Your task to perform on an android device: Go to ESPN.com Image 0: 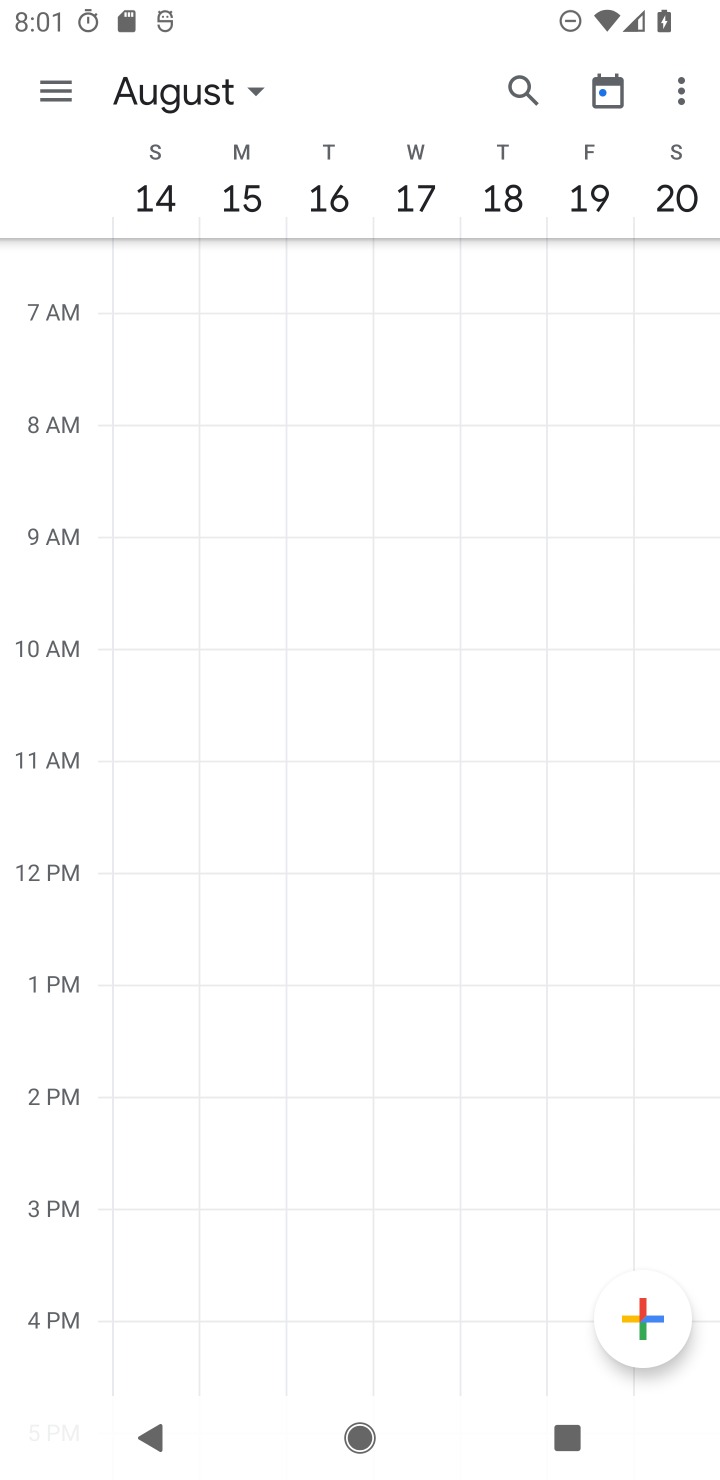
Step 0: press home button
Your task to perform on an android device: Go to ESPN.com Image 1: 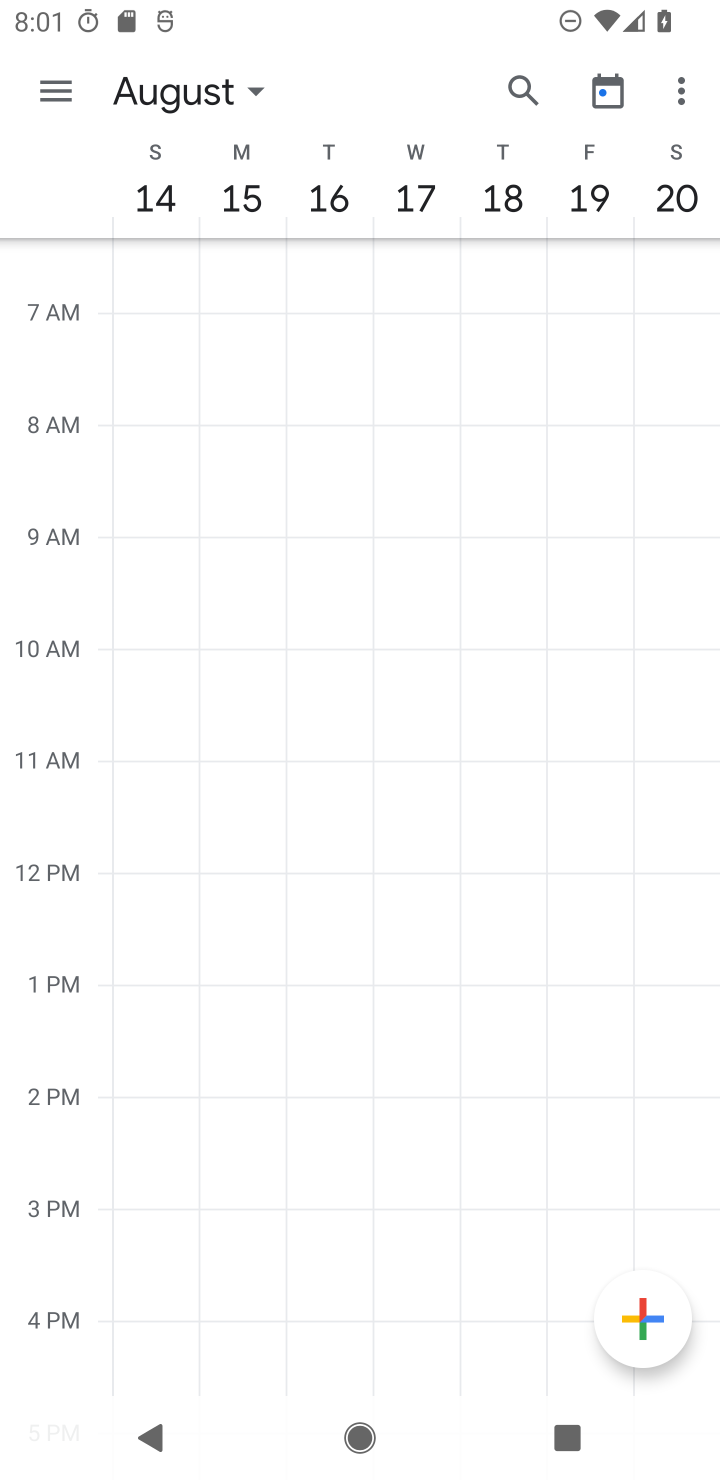
Step 1: press home button
Your task to perform on an android device: Go to ESPN.com Image 2: 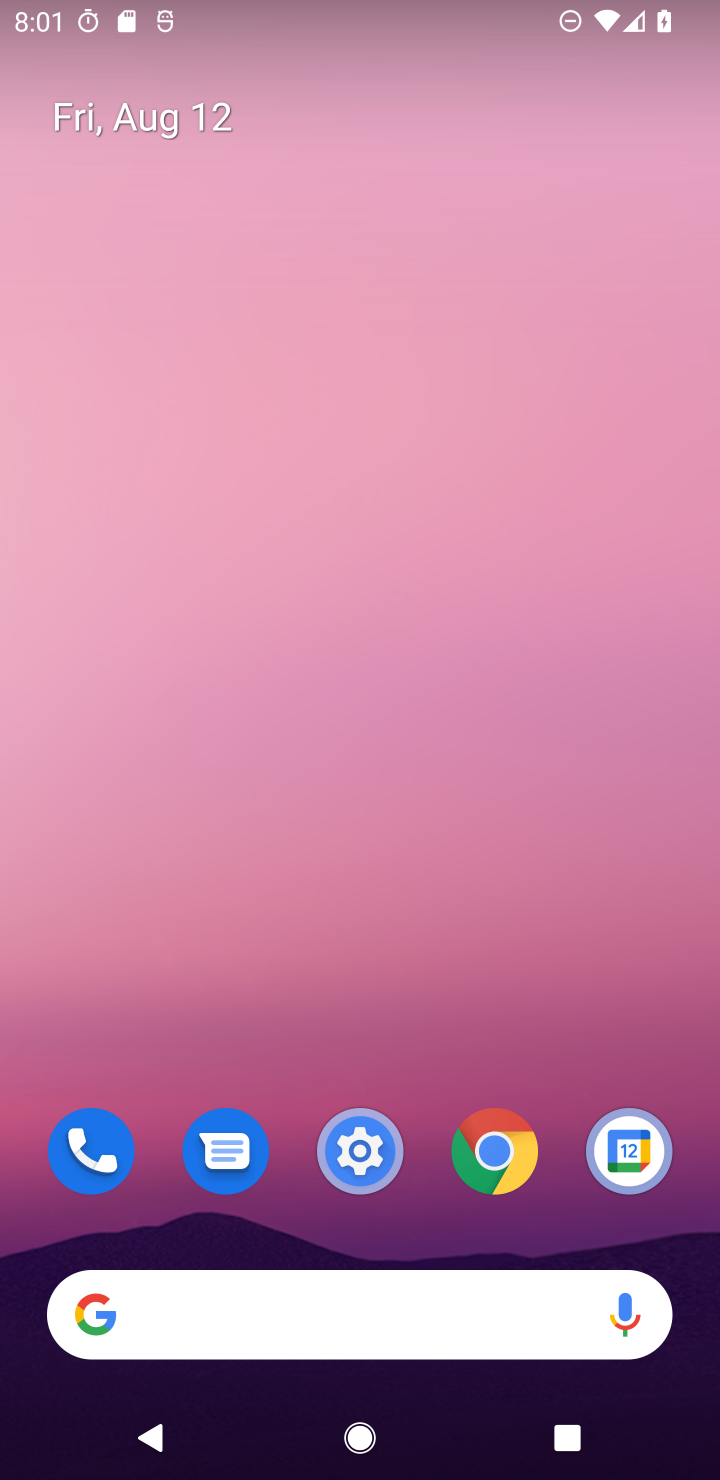
Step 2: drag from (401, 977) to (499, 5)
Your task to perform on an android device: Go to ESPN.com Image 3: 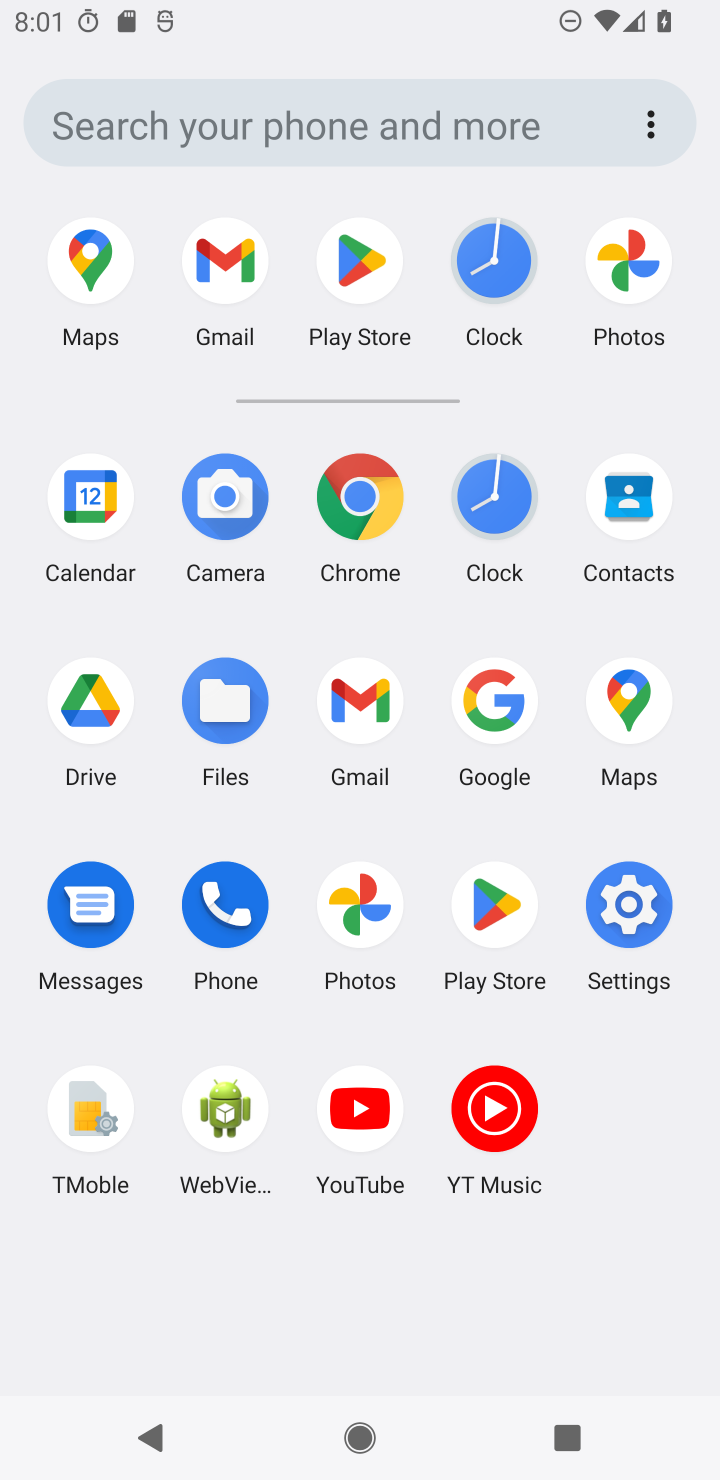
Step 3: click (357, 500)
Your task to perform on an android device: Go to ESPN.com Image 4: 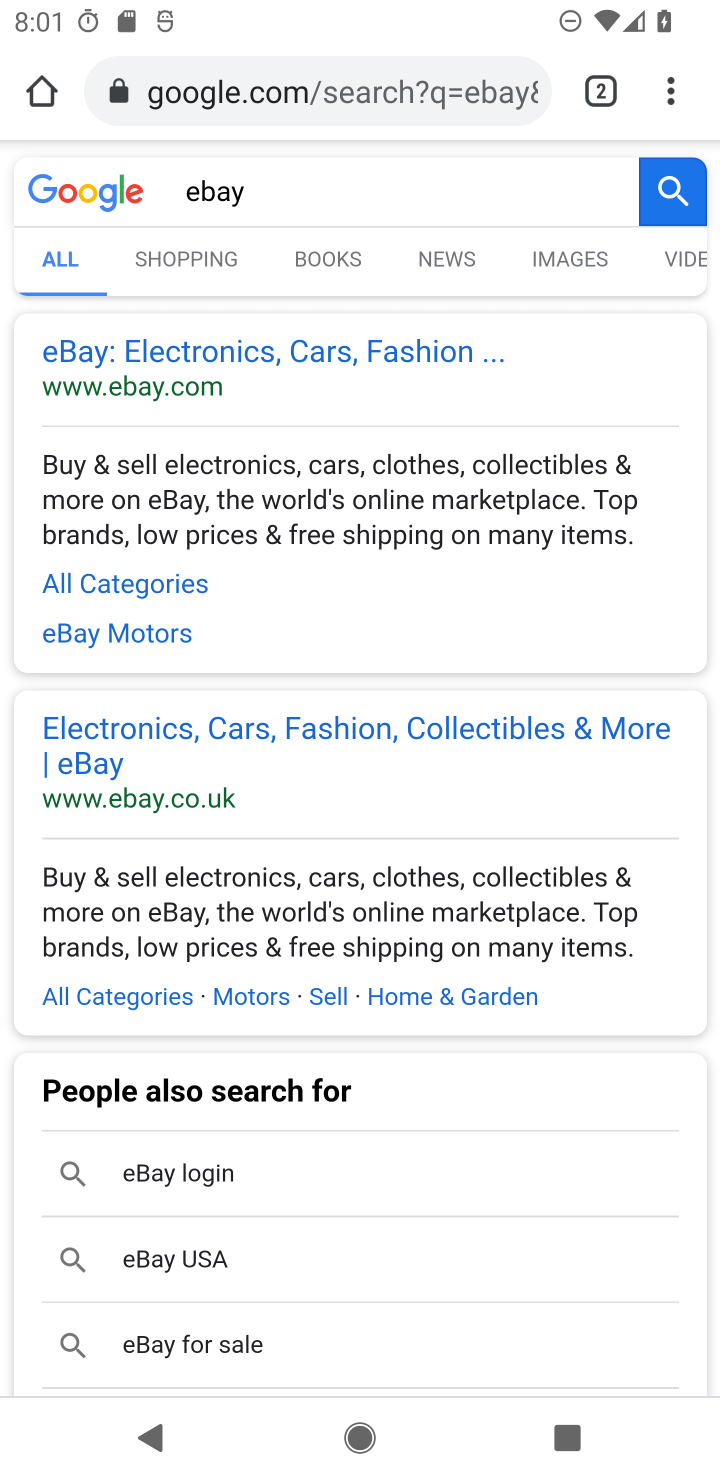
Step 4: click (348, 80)
Your task to perform on an android device: Go to ESPN.com Image 5: 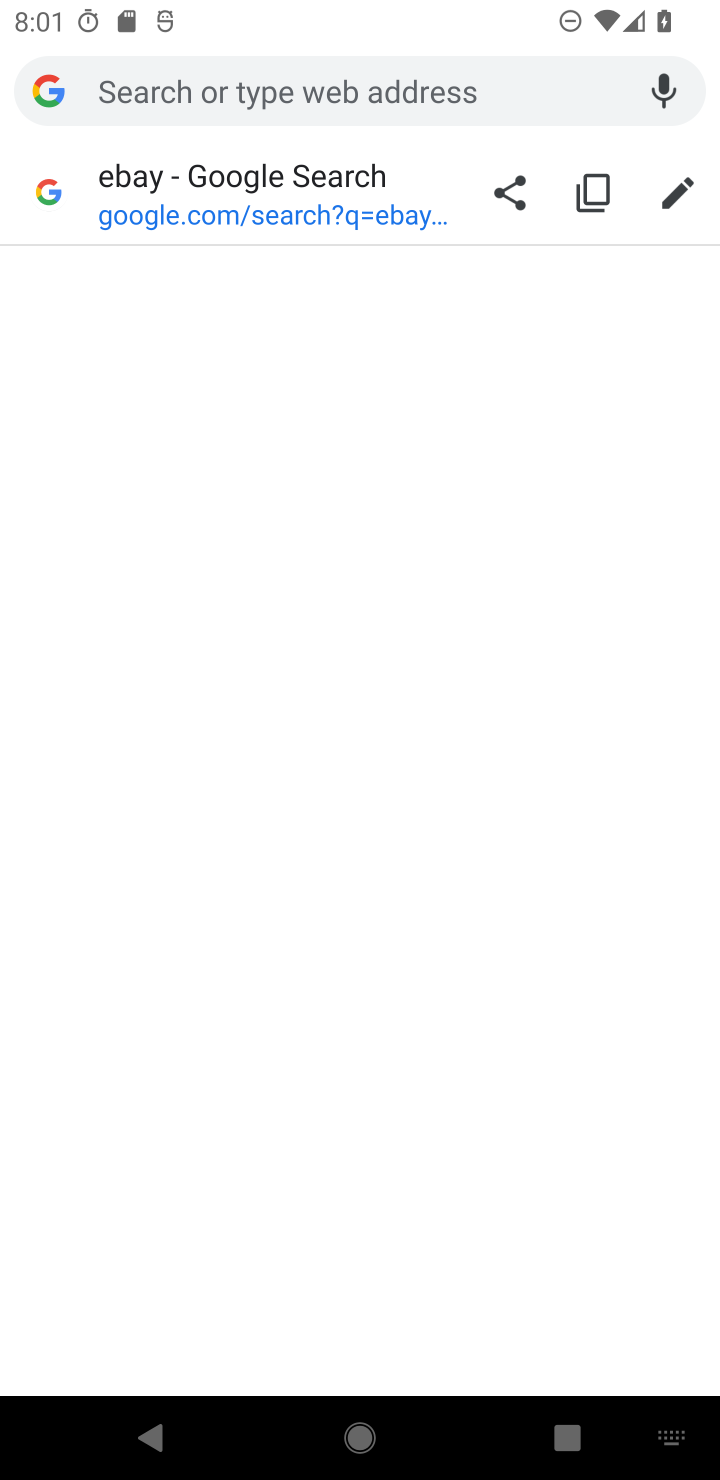
Step 5: type "espn.com"
Your task to perform on an android device: Go to ESPN.com Image 6: 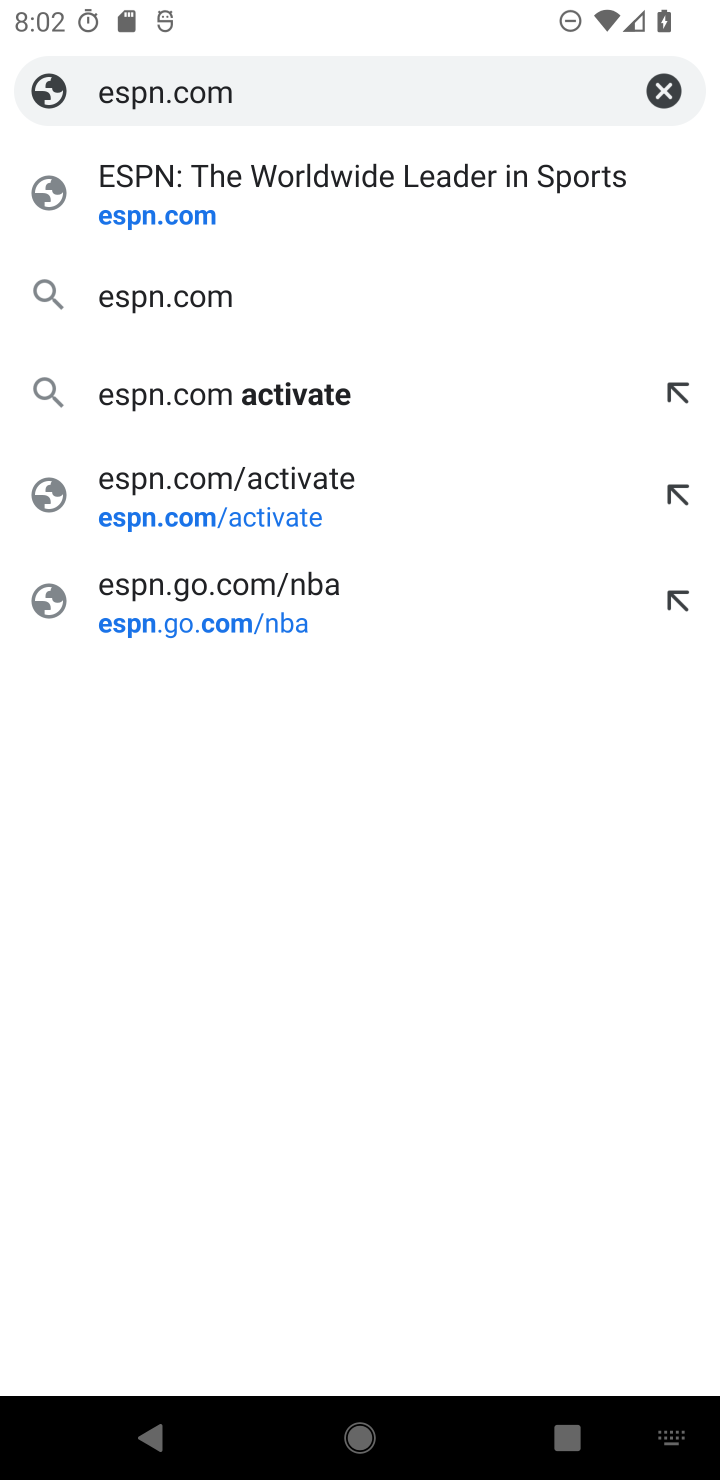
Step 6: click (163, 189)
Your task to perform on an android device: Go to ESPN.com Image 7: 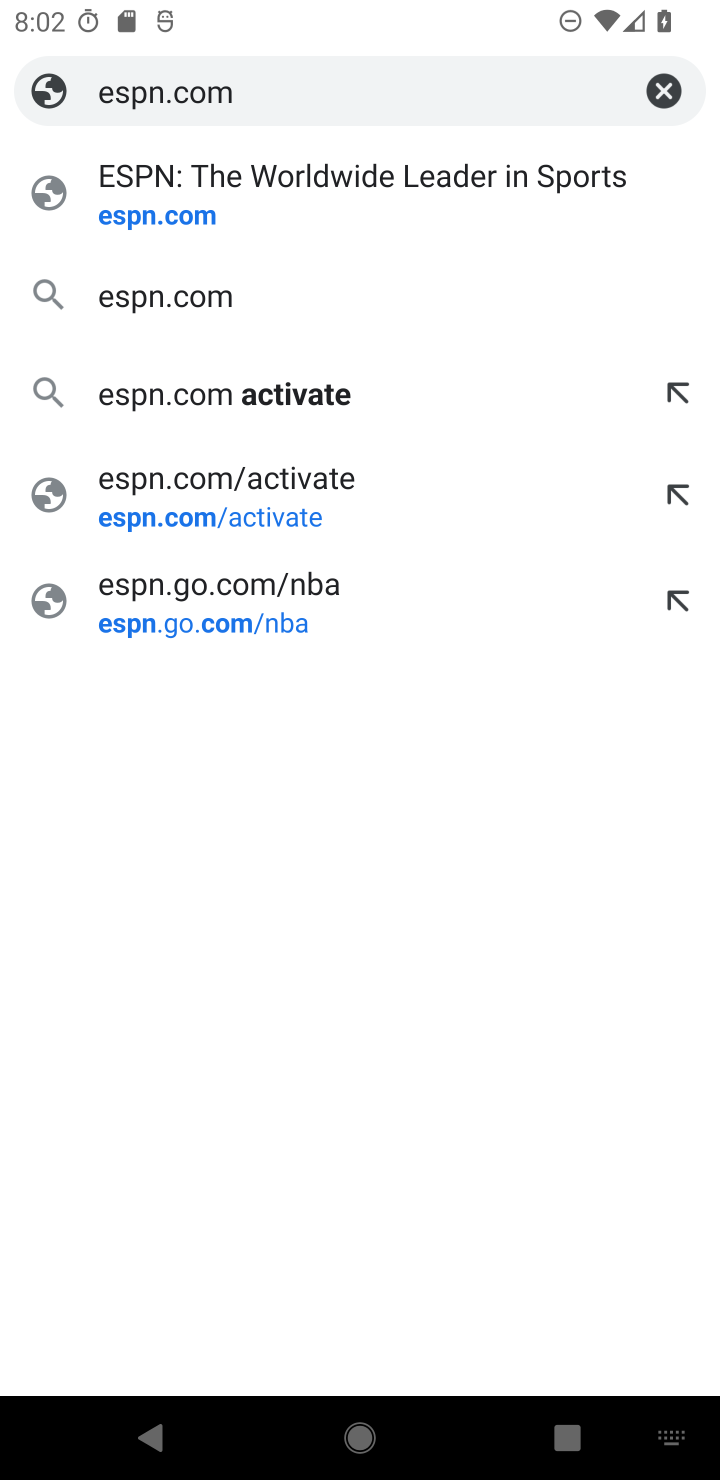
Step 7: click (163, 215)
Your task to perform on an android device: Go to ESPN.com Image 8: 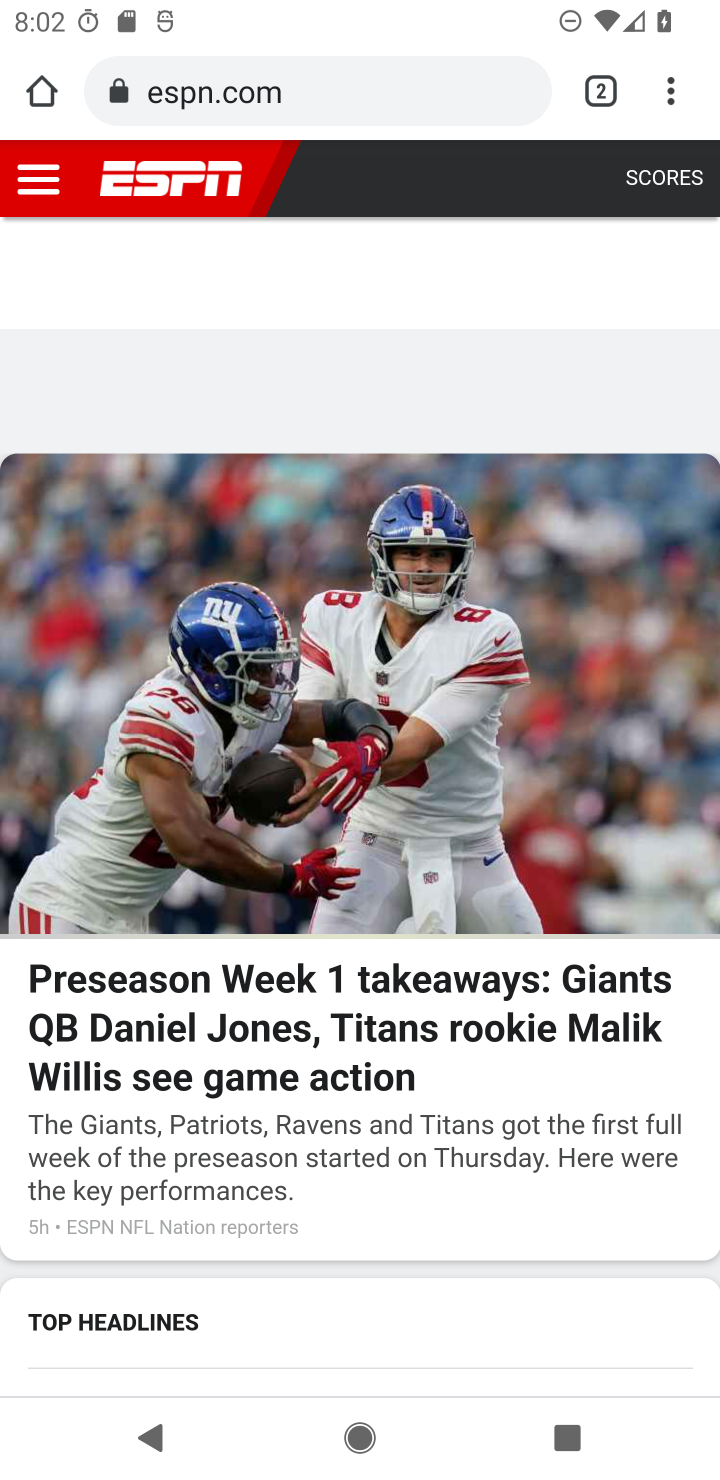
Step 8: task complete